Your task to perform on an android device: change the clock style Image 0: 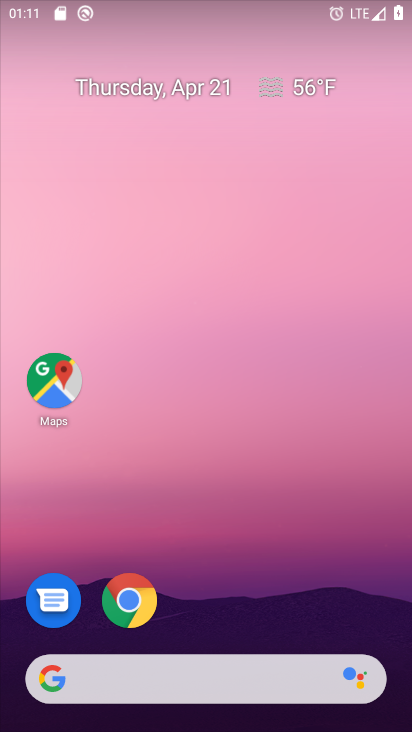
Step 0: drag from (259, 577) to (237, 110)
Your task to perform on an android device: change the clock style Image 1: 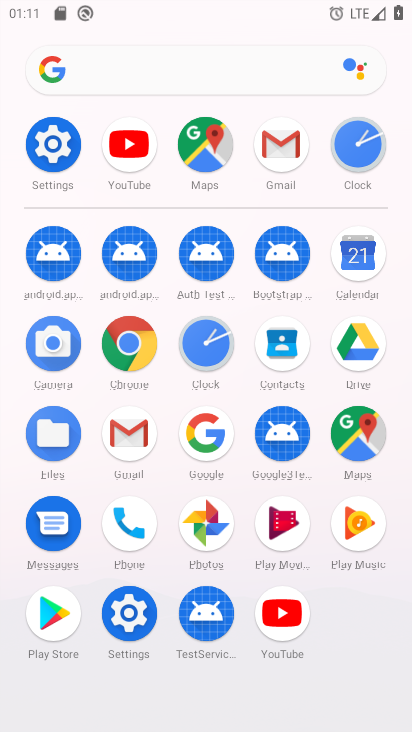
Step 1: click (215, 340)
Your task to perform on an android device: change the clock style Image 2: 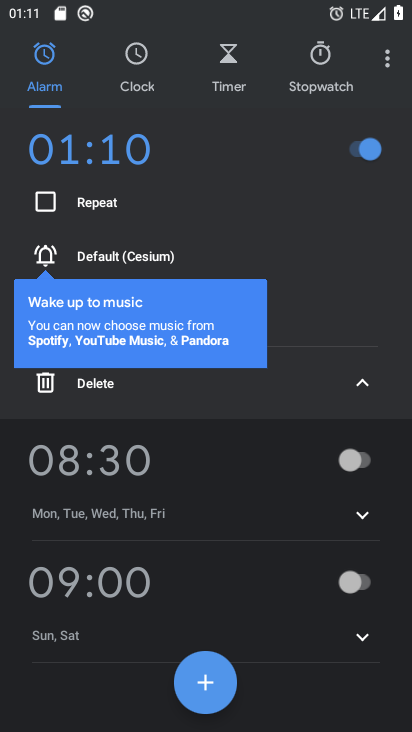
Step 2: click (393, 61)
Your task to perform on an android device: change the clock style Image 3: 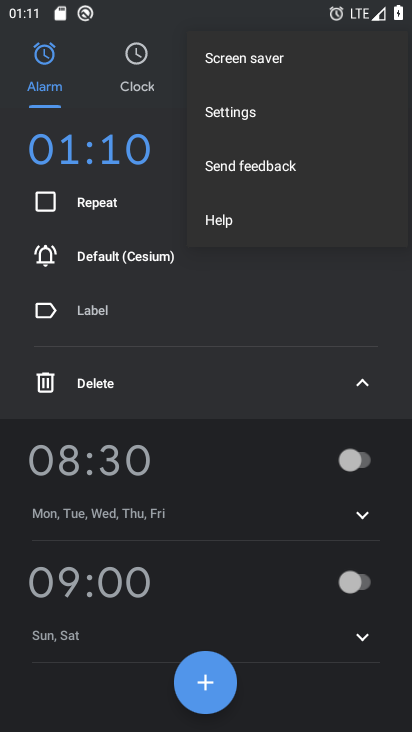
Step 3: click (280, 123)
Your task to perform on an android device: change the clock style Image 4: 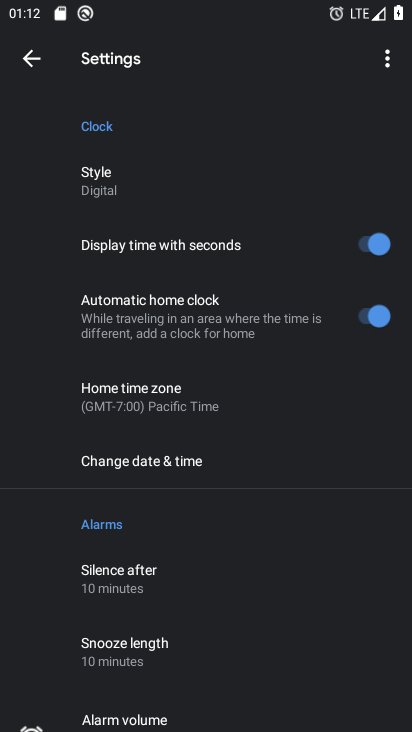
Step 4: click (169, 189)
Your task to perform on an android device: change the clock style Image 5: 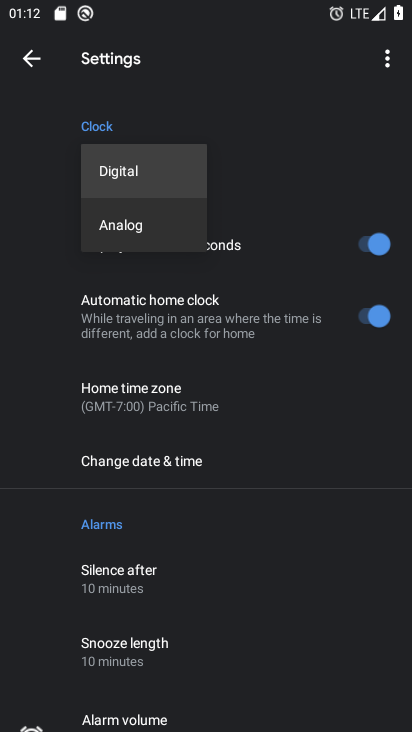
Step 5: click (163, 224)
Your task to perform on an android device: change the clock style Image 6: 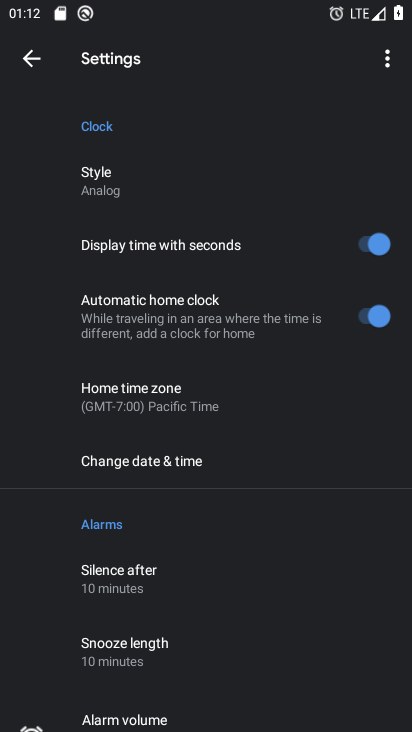
Step 6: task complete